Your task to perform on an android device: turn off translation in the chrome app Image 0: 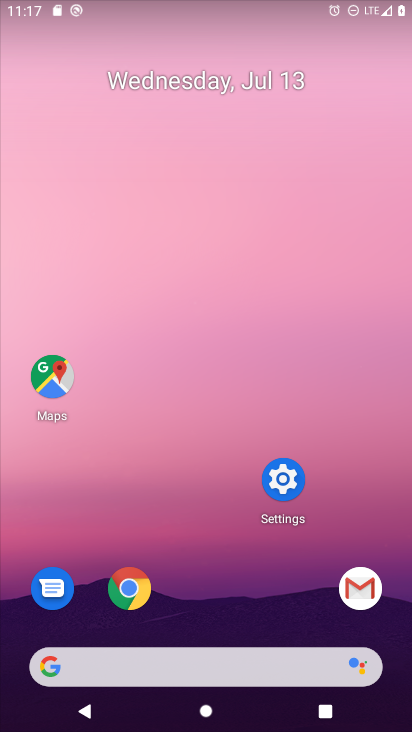
Step 0: click (128, 601)
Your task to perform on an android device: turn off translation in the chrome app Image 1: 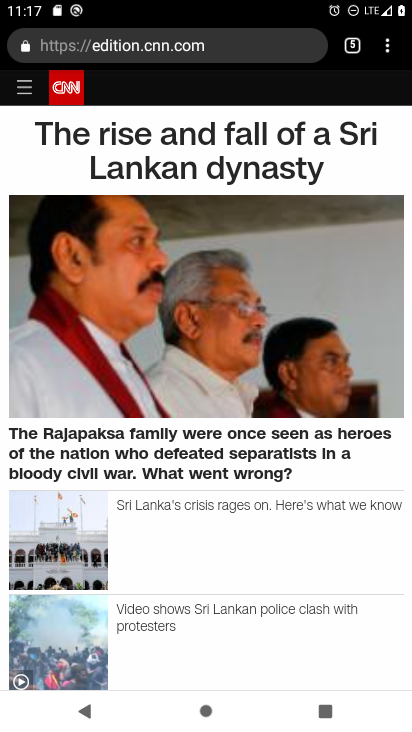
Step 1: click (392, 60)
Your task to perform on an android device: turn off translation in the chrome app Image 2: 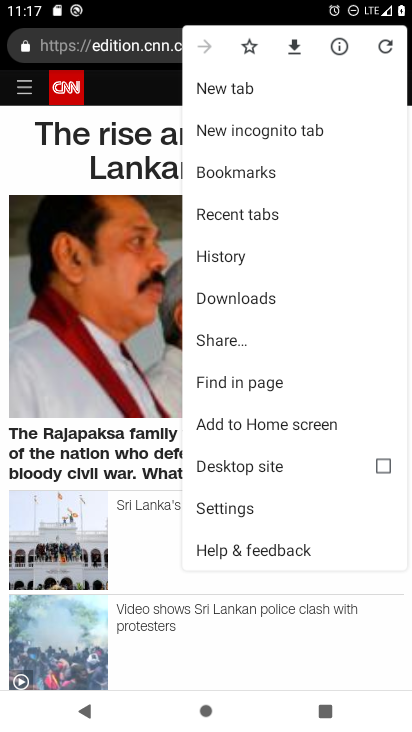
Step 2: click (261, 511)
Your task to perform on an android device: turn off translation in the chrome app Image 3: 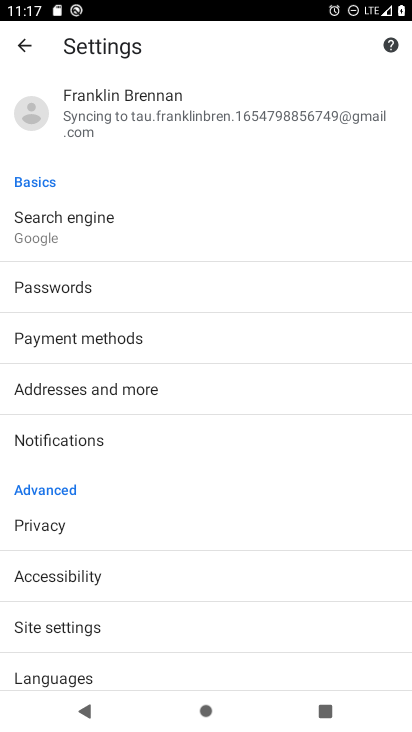
Step 3: click (116, 678)
Your task to perform on an android device: turn off translation in the chrome app Image 4: 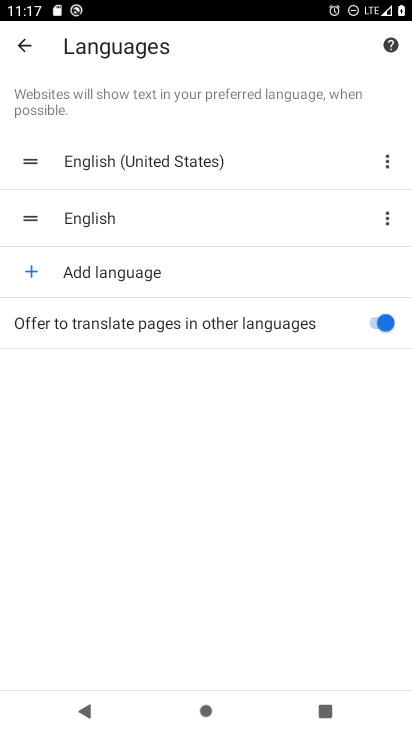
Step 4: click (372, 330)
Your task to perform on an android device: turn off translation in the chrome app Image 5: 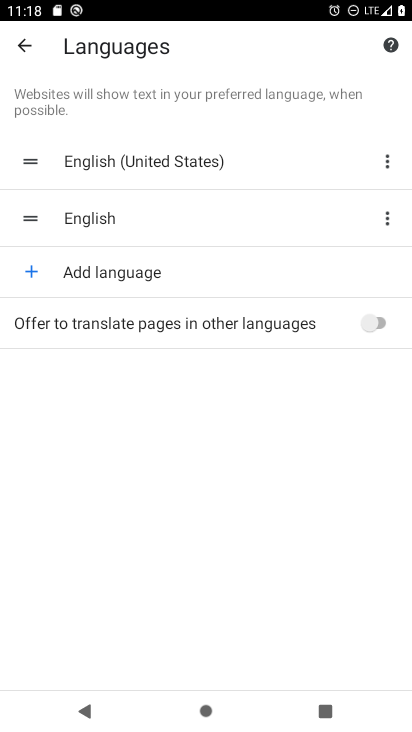
Step 5: task complete